Your task to perform on an android device: see creations saved in the google photos Image 0: 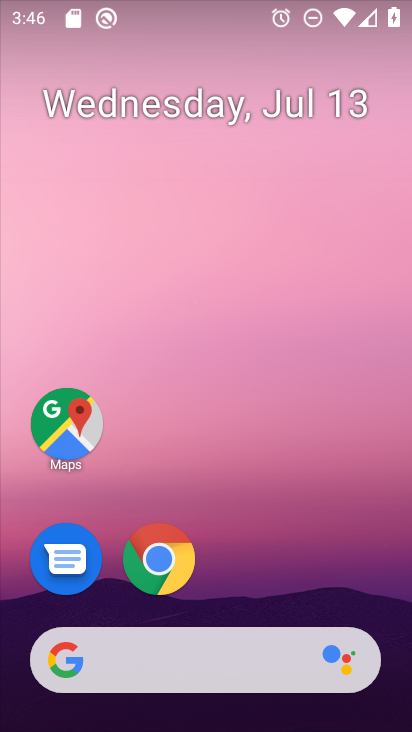
Step 0: drag from (361, 572) to (370, 191)
Your task to perform on an android device: see creations saved in the google photos Image 1: 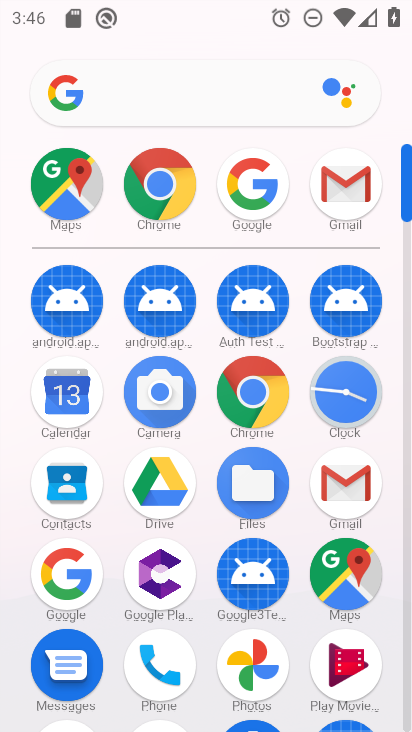
Step 1: click (259, 666)
Your task to perform on an android device: see creations saved in the google photos Image 2: 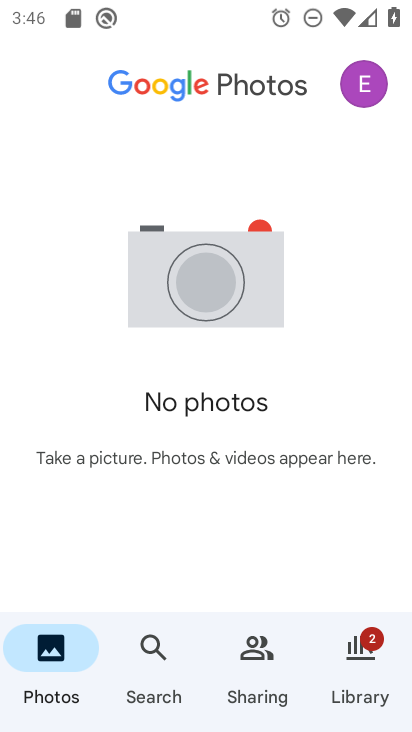
Step 2: click (157, 663)
Your task to perform on an android device: see creations saved in the google photos Image 3: 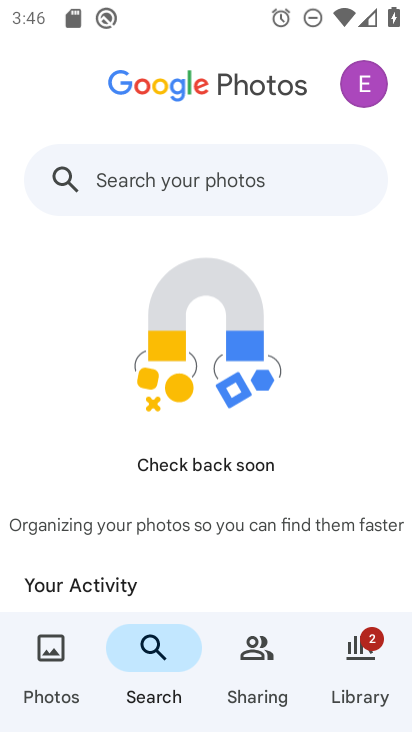
Step 3: drag from (297, 480) to (297, 388)
Your task to perform on an android device: see creations saved in the google photos Image 4: 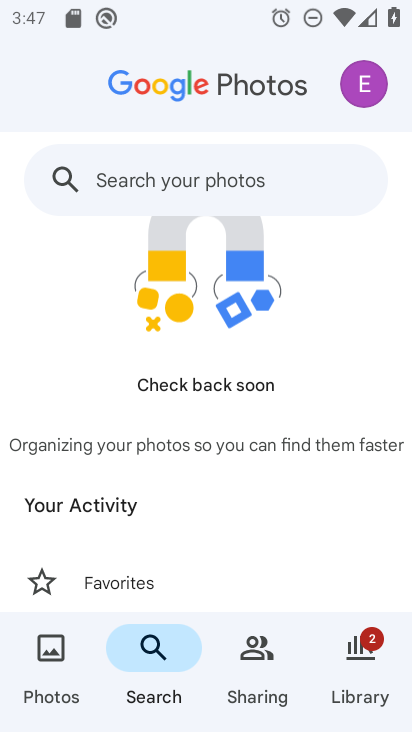
Step 4: drag from (290, 487) to (287, 360)
Your task to perform on an android device: see creations saved in the google photos Image 5: 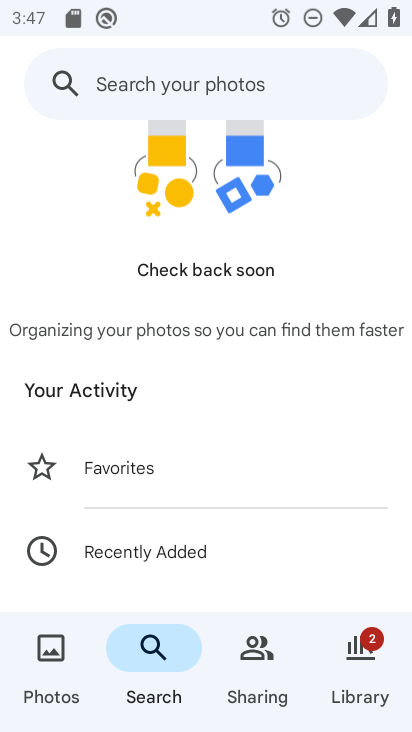
Step 5: drag from (285, 480) to (285, 382)
Your task to perform on an android device: see creations saved in the google photos Image 6: 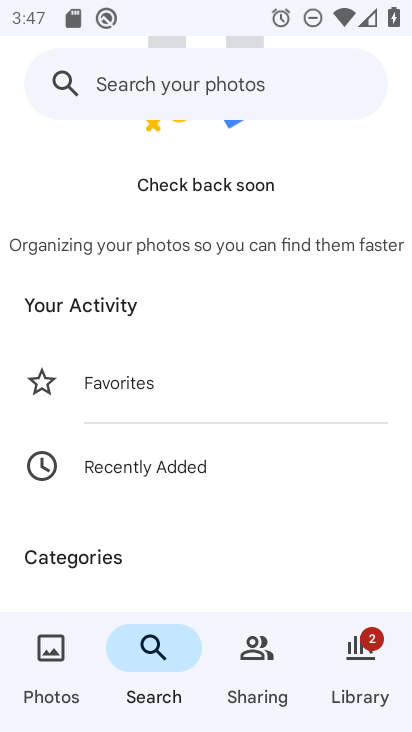
Step 6: drag from (270, 484) to (270, 386)
Your task to perform on an android device: see creations saved in the google photos Image 7: 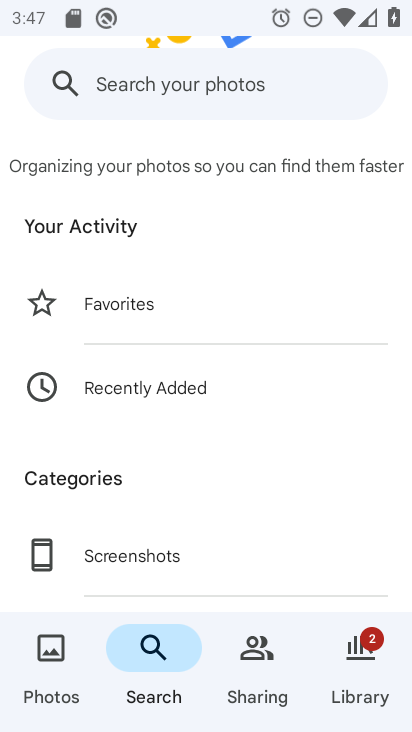
Step 7: drag from (258, 487) to (262, 275)
Your task to perform on an android device: see creations saved in the google photos Image 8: 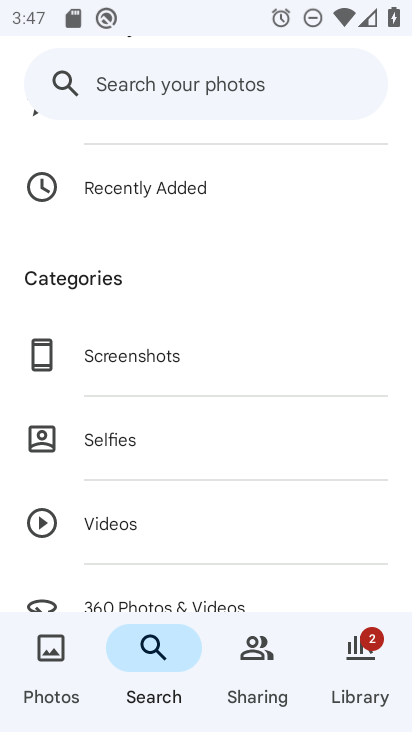
Step 8: drag from (281, 481) to (295, 315)
Your task to perform on an android device: see creations saved in the google photos Image 9: 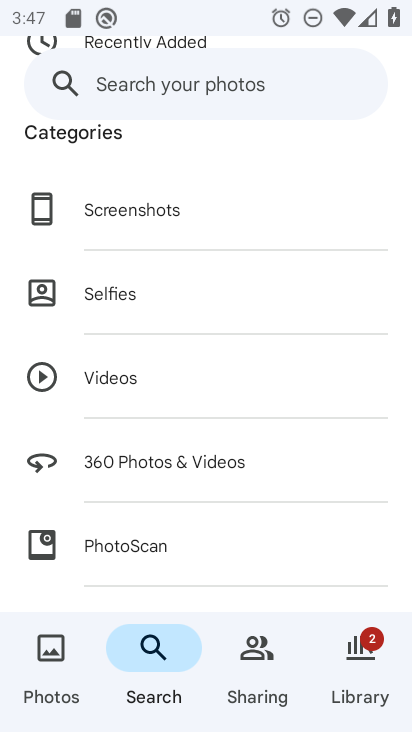
Step 9: drag from (288, 467) to (288, 307)
Your task to perform on an android device: see creations saved in the google photos Image 10: 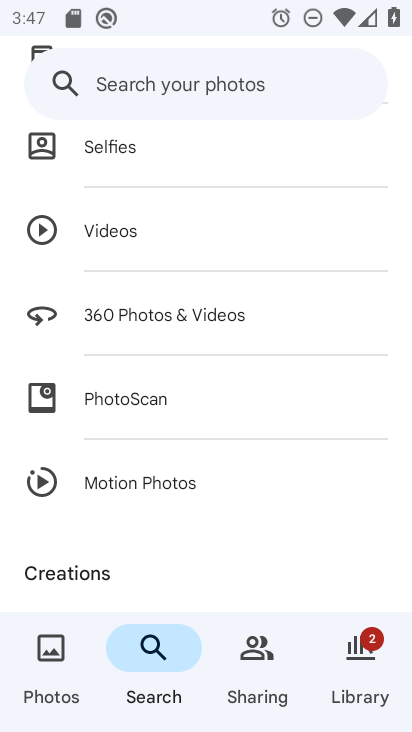
Step 10: drag from (276, 477) to (280, 288)
Your task to perform on an android device: see creations saved in the google photos Image 11: 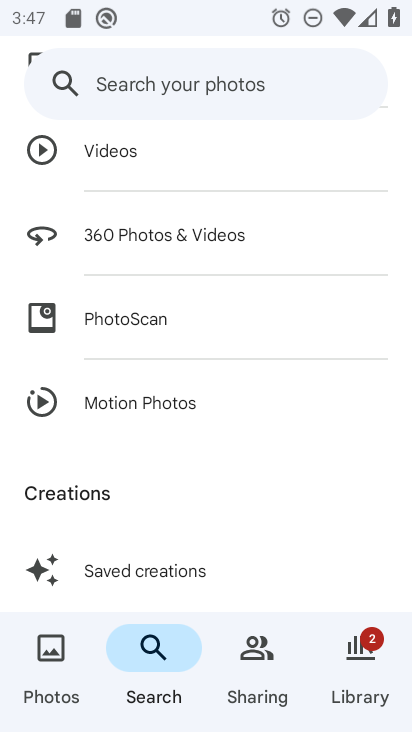
Step 11: click (169, 575)
Your task to perform on an android device: see creations saved in the google photos Image 12: 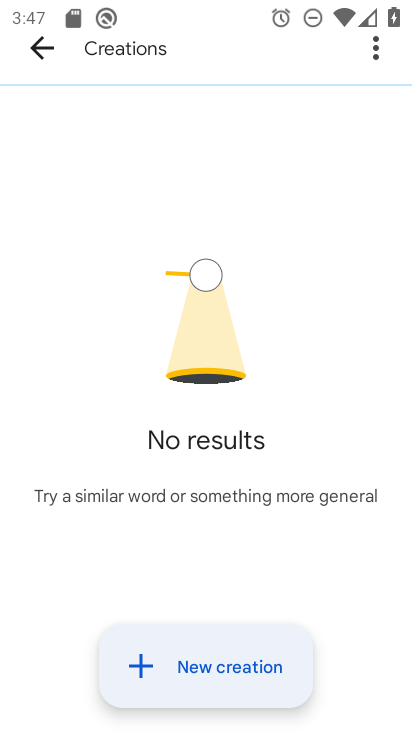
Step 12: task complete